Your task to perform on an android device: show emergency info Image 0: 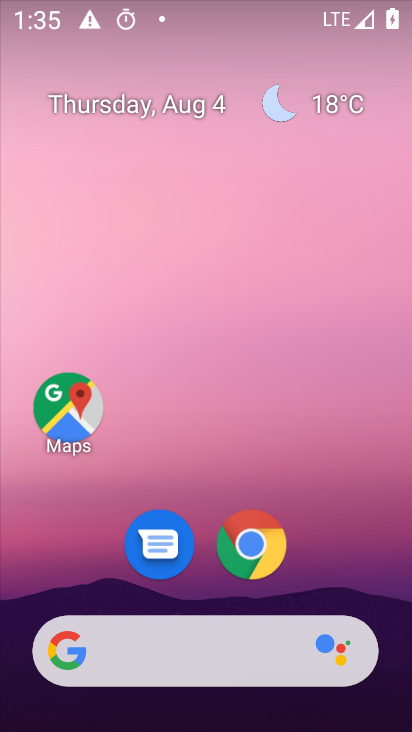
Step 0: click (298, 155)
Your task to perform on an android device: show emergency info Image 1: 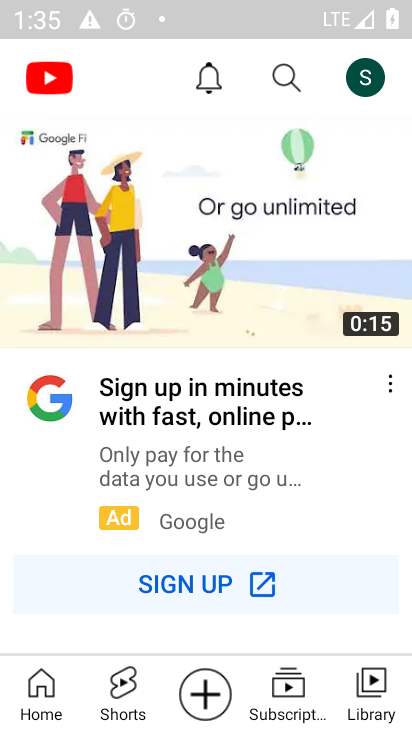
Step 1: press home button
Your task to perform on an android device: show emergency info Image 2: 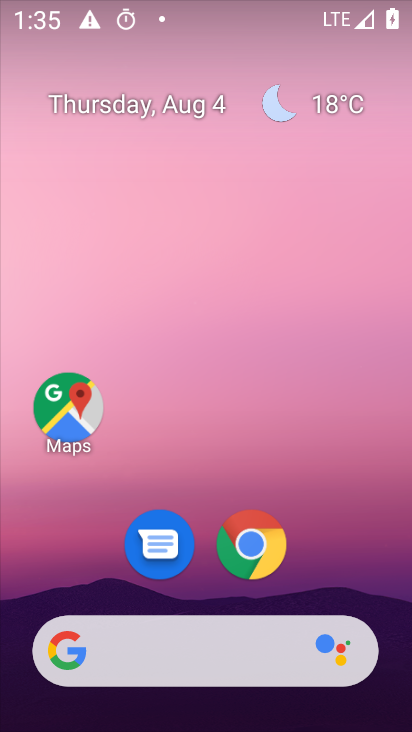
Step 2: drag from (392, 717) to (345, 89)
Your task to perform on an android device: show emergency info Image 3: 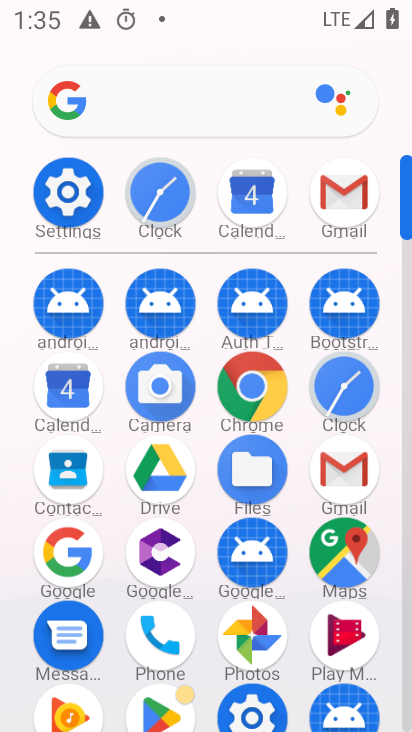
Step 3: click (72, 192)
Your task to perform on an android device: show emergency info Image 4: 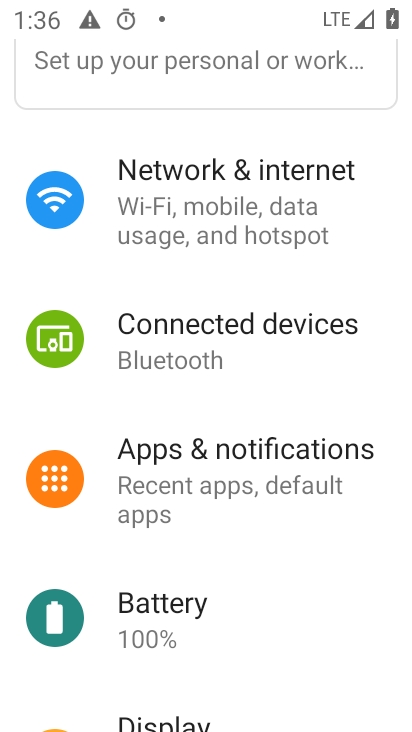
Step 4: drag from (266, 682) to (248, 224)
Your task to perform on an android device: show emergency info Image 5: 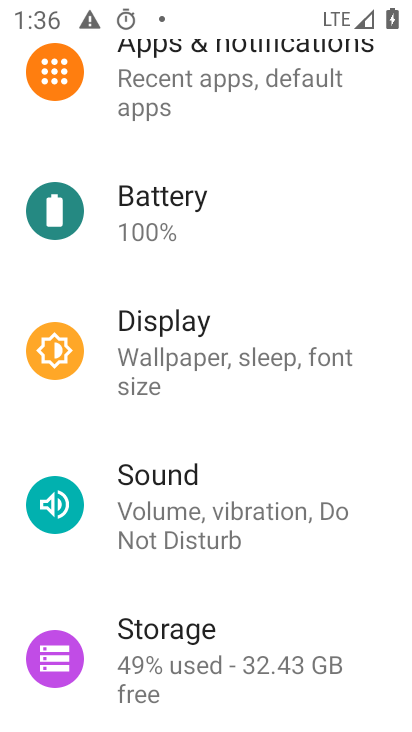
Step 5: drag from (278, 701) to (257, 281)
Your task to perform on an android device: show emergency info Image 6: 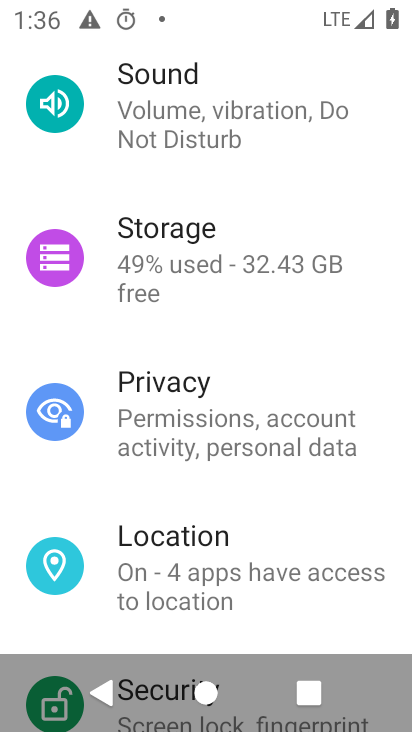
Step 6: drag from (261, 617) to (239, 291)
Your task to perform on an android device: show emergency info Image 7: 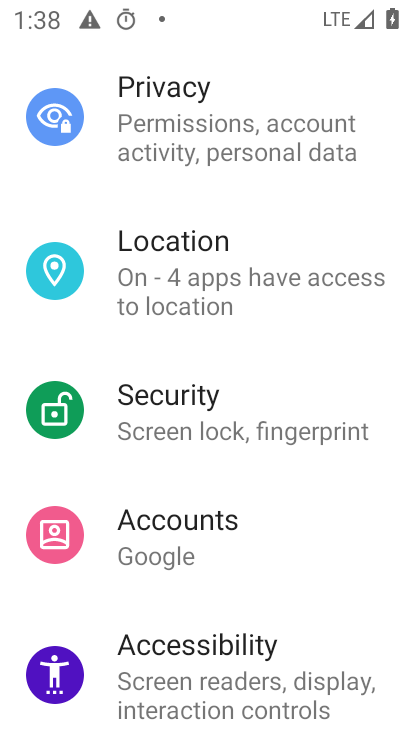
Step 7: drag from (269, 657) to (258, 153)
Your task to perform on an android device: show emergency info Image 8: 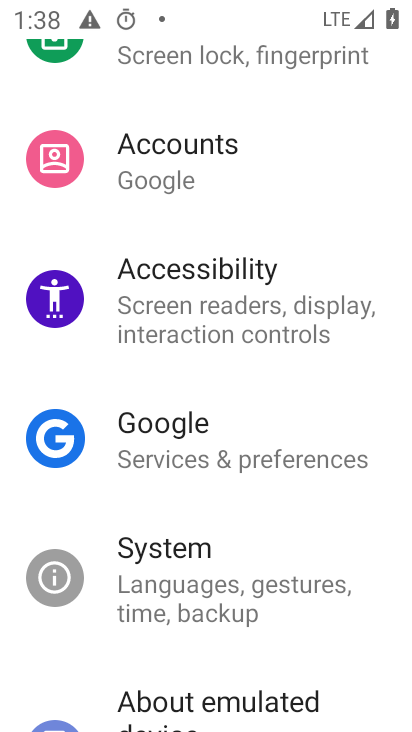
Step 8: drag from (244, 659) to (256, 319)
Your task to perform on an android device: show emergency info Image 9: 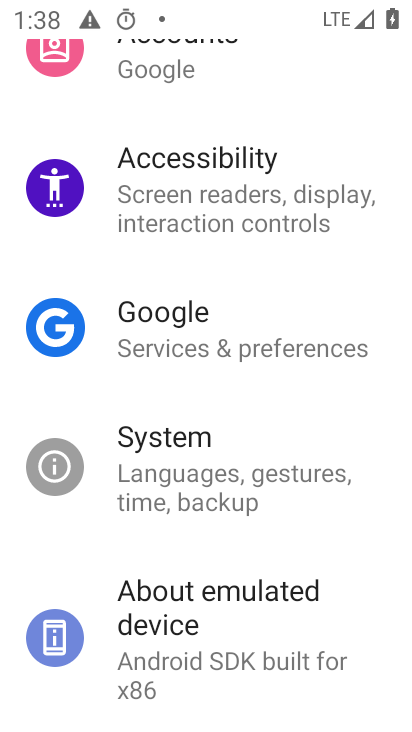
Step 9: click (192, 618)
Your task to perform on an android device: show emergency info Image 10: 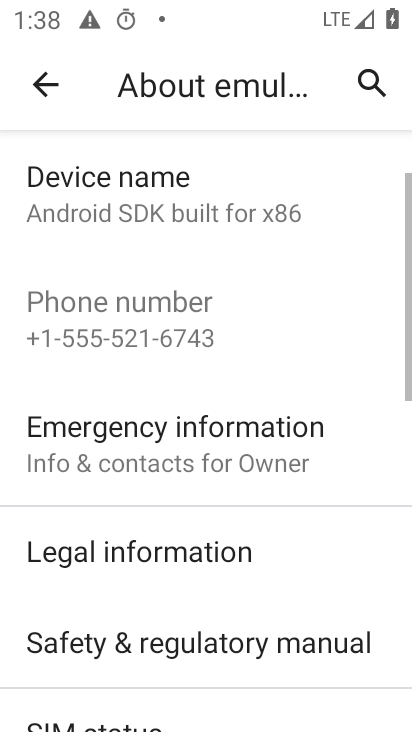
Step 10: drag from (248, 591) to (256, 300)
Your task to perform on an android device: show emergency info Image 11: 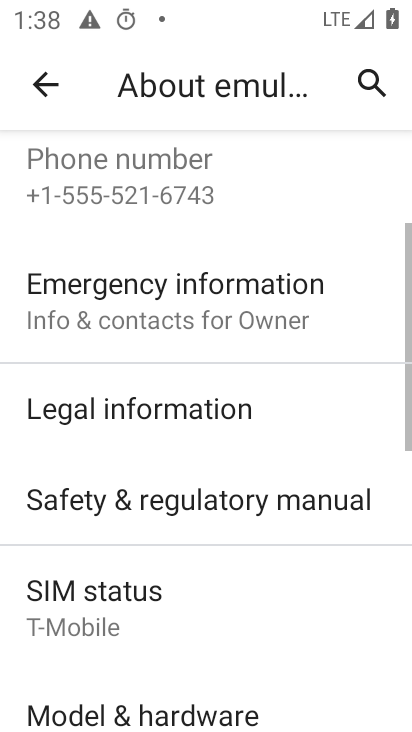
Step 11: click (96, 300)
Your task to perform on an android device: show emergency info Image 12: 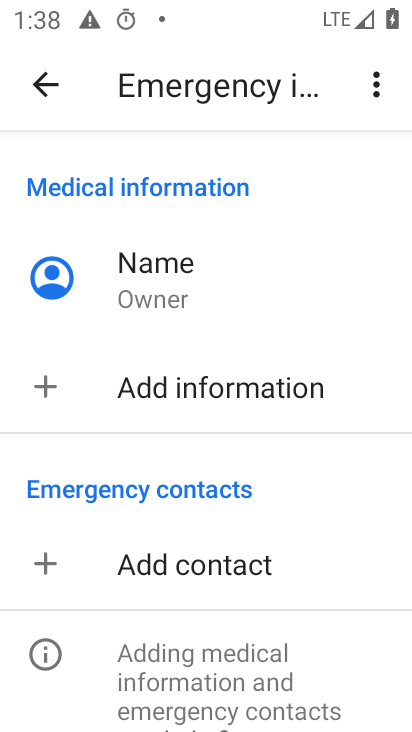
Step 12: task complete